Your task to perform on an android device: toggle translation in the chrome app Image 0: 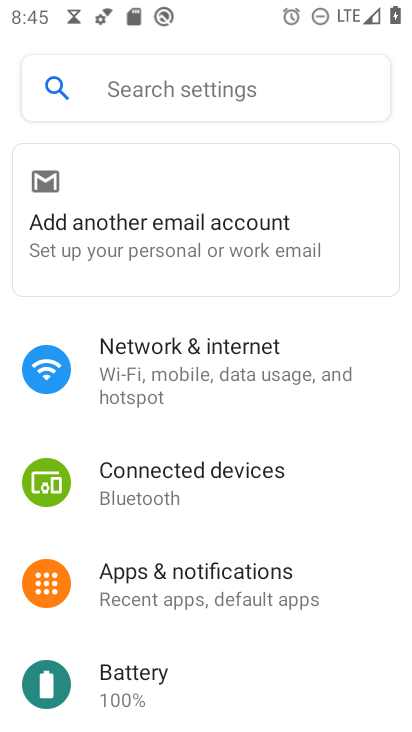
Step 0: press home button
Your task to perform on an android device: toggle translation in the chrome app Image 1: 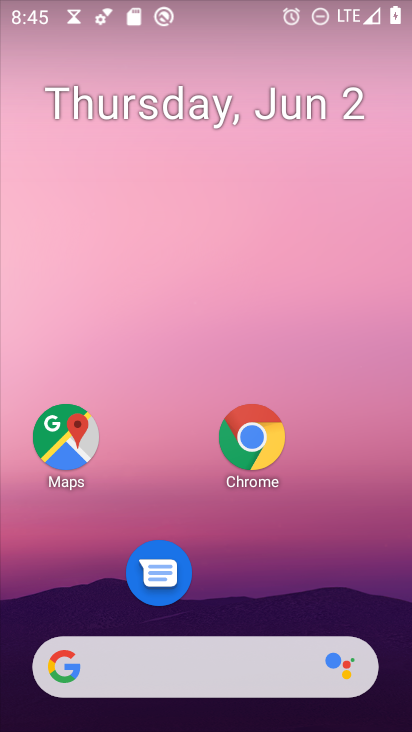
Step 1: click (261, 452)
Your task to perform on an android device: toggle translation in the chrome app Image 2: 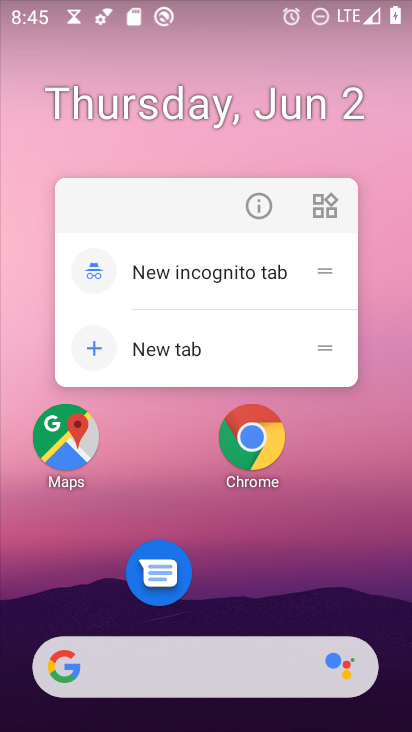
Step 2: click (251, 441)
Your task to perform on an android device: toggle translation in the chrome app Image 3: 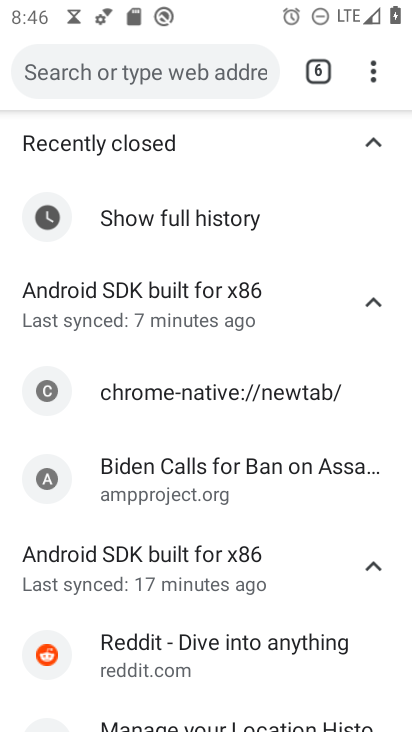
Step 3: drag from (373, 73) to (167, 610)
Your task to perform on an android device: toggle translation in the chrome app Image 4: 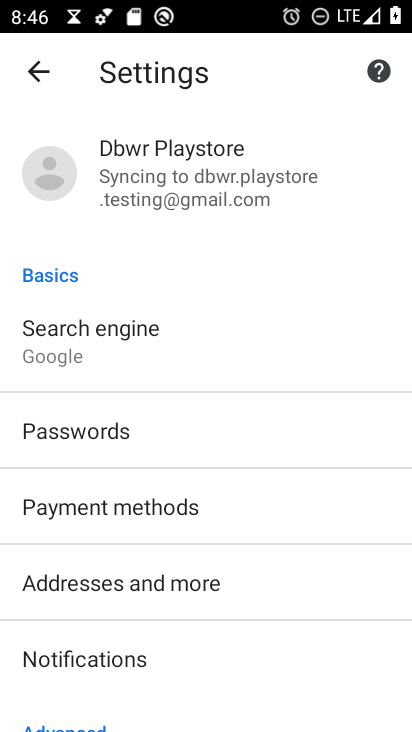
Step 4: drag from (192, 684) to (287, 230)
Your task to perform on an android device: toggle translation in the chrome app Image 5: 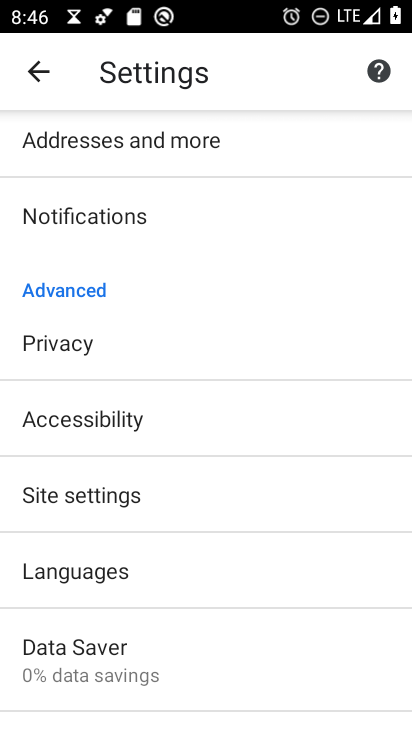
Step 5: click (124, 580)
Your task to perform on an android device: toggle translation in the chrome app Image 6: 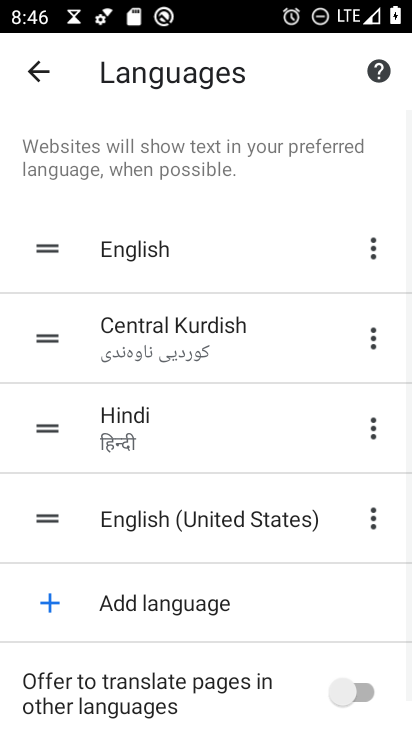
Step 6: click (358, 693)
Your task to perform on an android device: toggle translation in the chrome app Image 7: 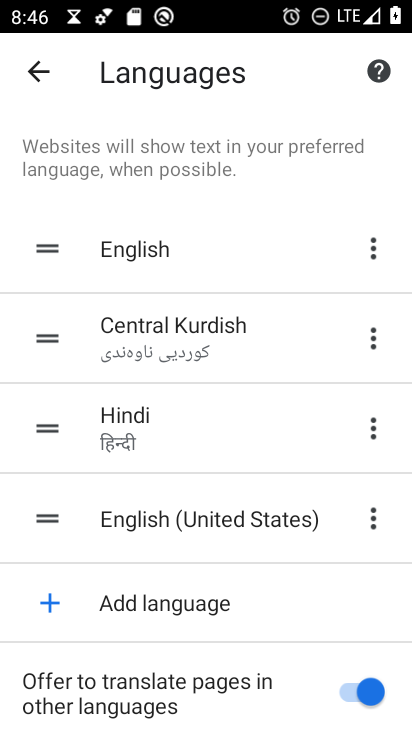
Step 7: task complete